Your task to perform on an android device: Go to network settings Image 0: 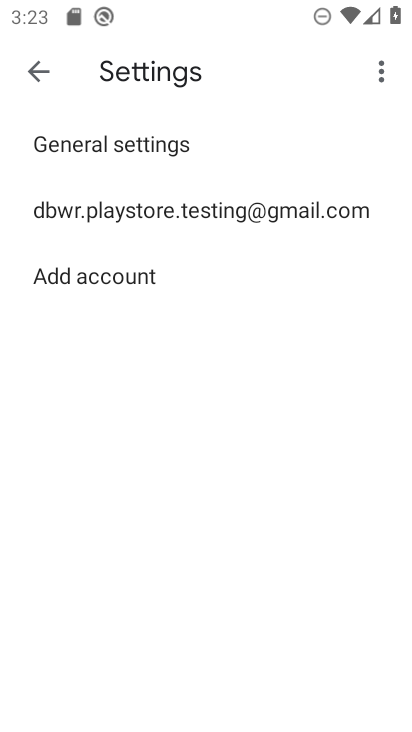
Step 0: press home button
Your task to perform on an android device: Go to network settings Image 1: 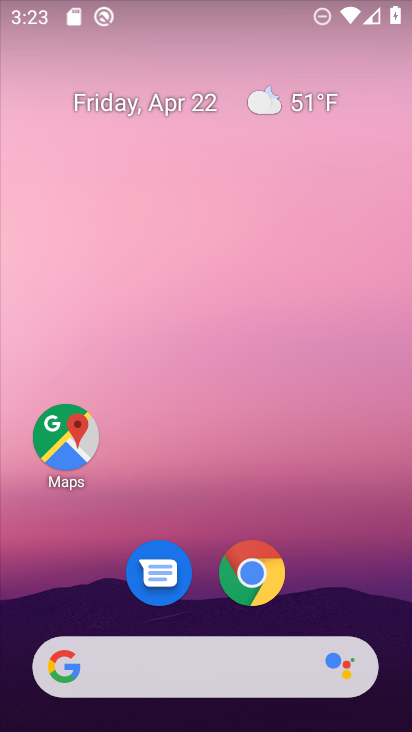
Step 1: drag from (322, 595) to (304, 91)
Your task to perform on an android device: Go to network settings Image 2: 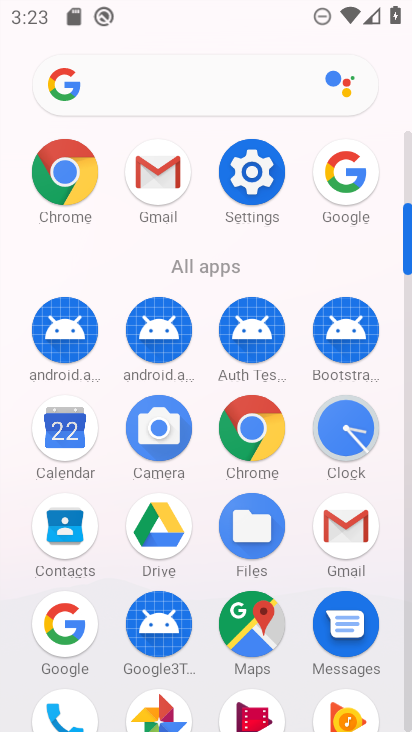
Step 2: drag from (218, 414) to (259, 87)
Your task to perform on an android device: Go to network settings Image 3: 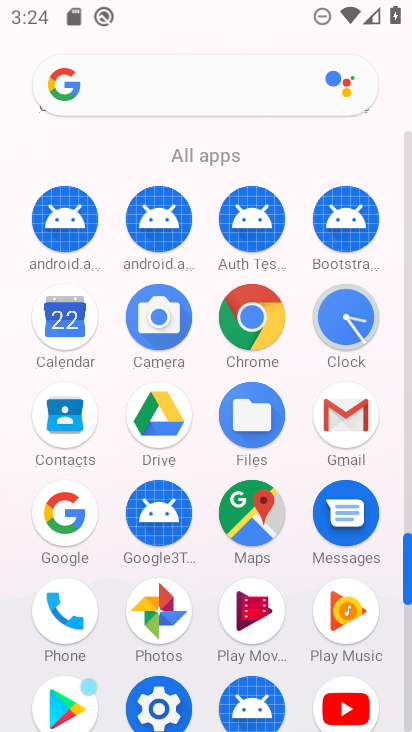
Step 3: drag from (245, 250) to (217, 597)
Your task to perform on an android device: Go to network settings Image 4: 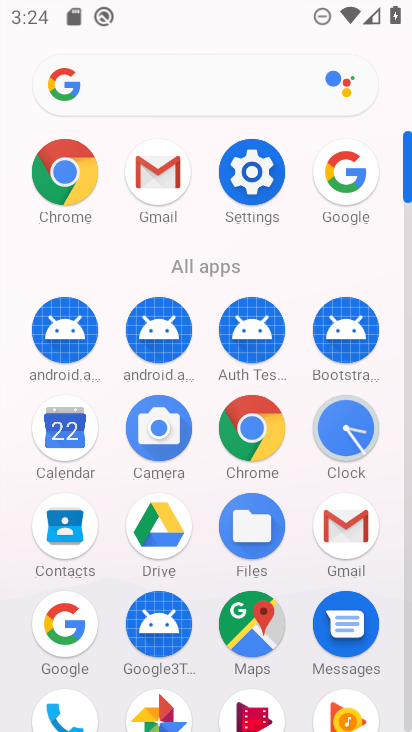
Step 4: click (265, 191)
Your task to perform on an android device: Go to network settings Image 5: 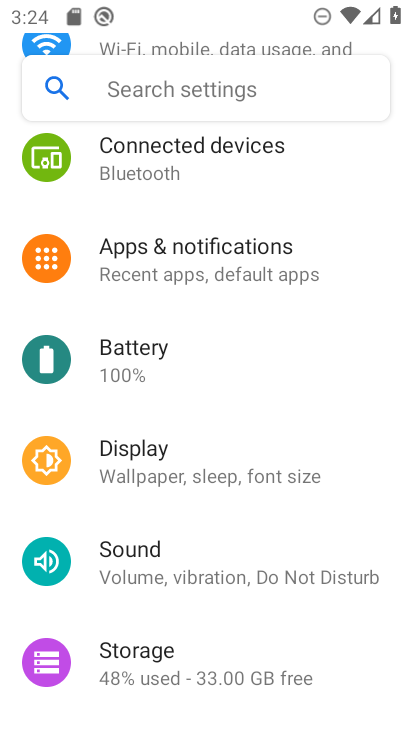
Step 5: drag from (263, 198) to (267, 575)
Your task to perform on an android device: Go to network settings Image 6: 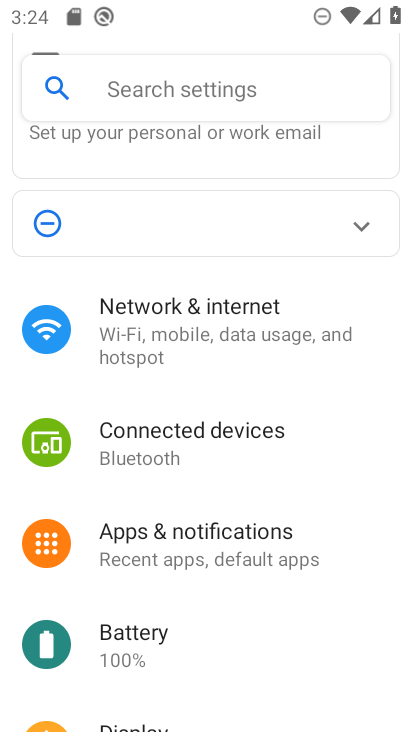
Step 6: click (194, 303)
Your task to perform on an android device: Go to network settings Image 7: 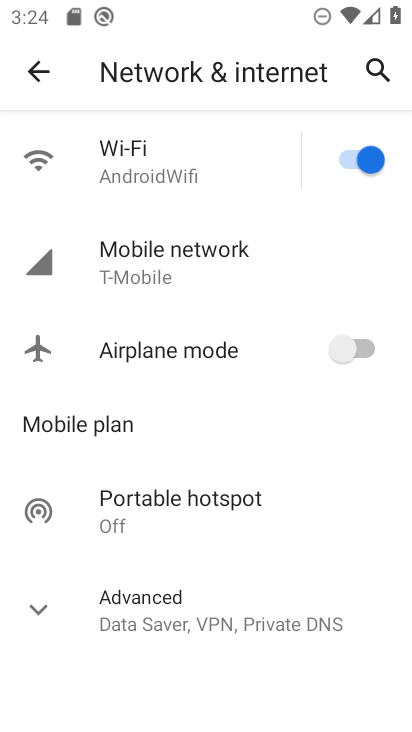
Step 7: click (279, 238)
Your task to perform on an android device: Go to network settings Image 8: 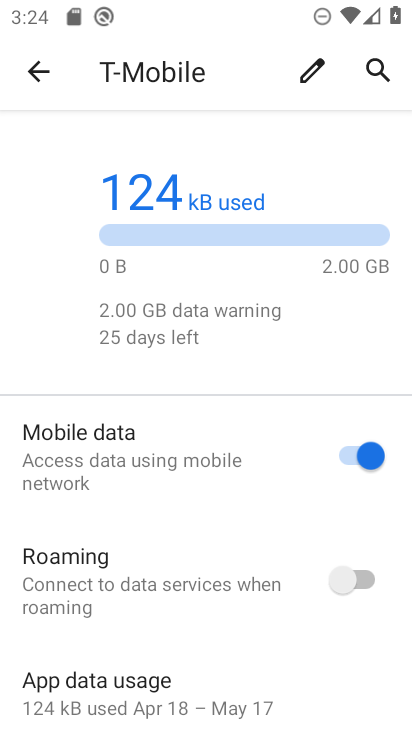
Step 8: task complete